Your task to perform on an android device: turn on javascript in the chrome app Image 0: 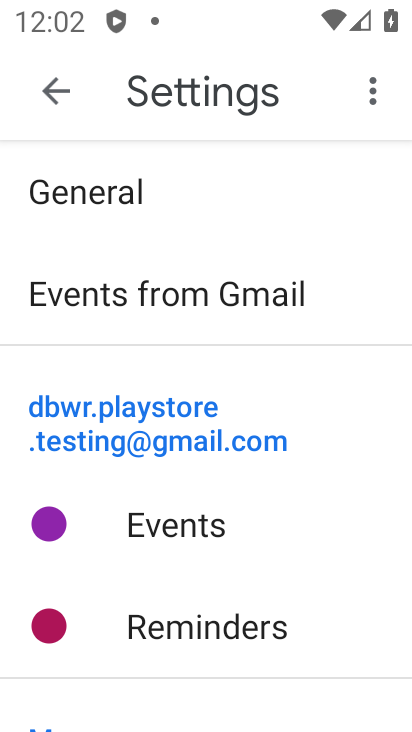
Step 0: press home button
Your task to perform on an android device: turn on javascript in the chrome app Image 1: 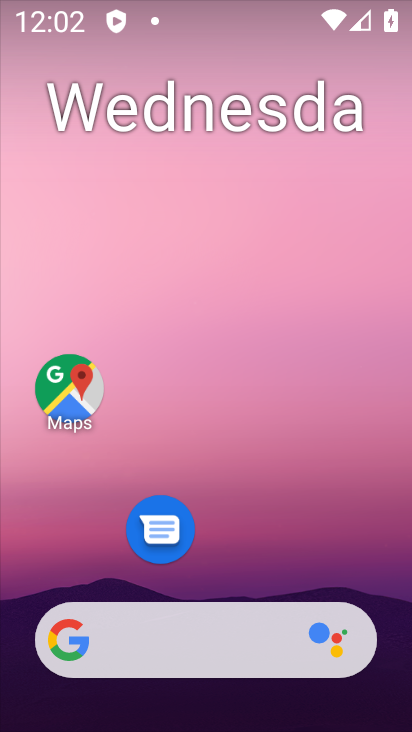
Step 1: drag from (220, 585) to (387, 3)
Your task to perform on an android device: turn on javascript in the chrome app Image 2: 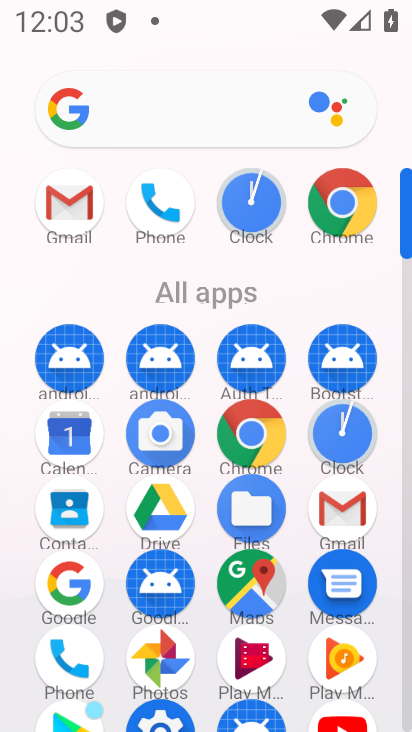
Step 2: click (271, 441)
Your task to perform on an android device: turn on javascript in the chrome app Image 3: 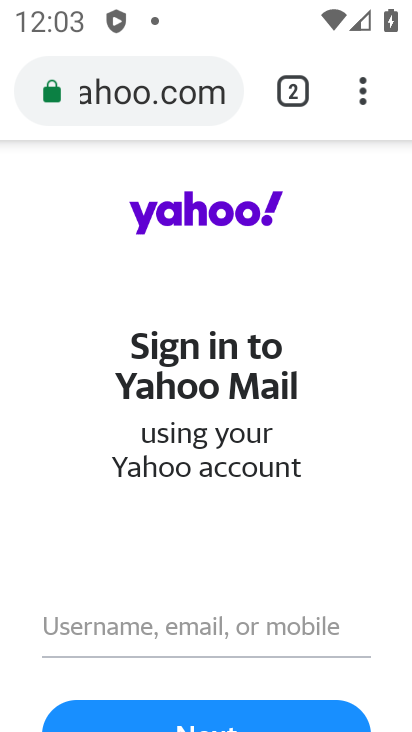
Step 3: drag from (355, 84) to (129, 558)
Your task to perform on an android device: turn on javascript in the chrome app Image 4: 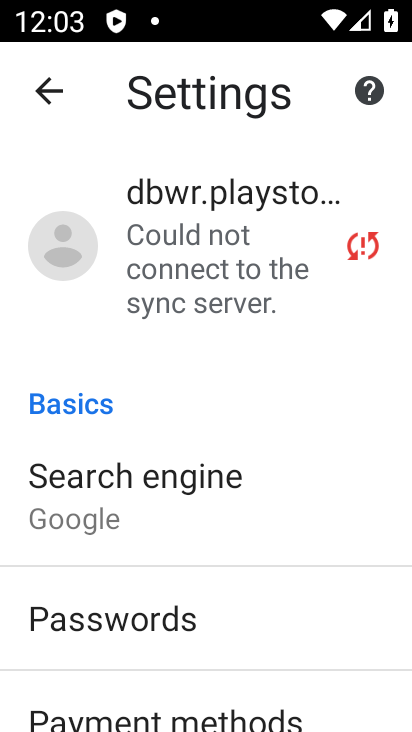
Step 4: drag from (180, 673) to (169, 180)
Your task to perform on an android device: turn on javascript in the chrome app Image 5: 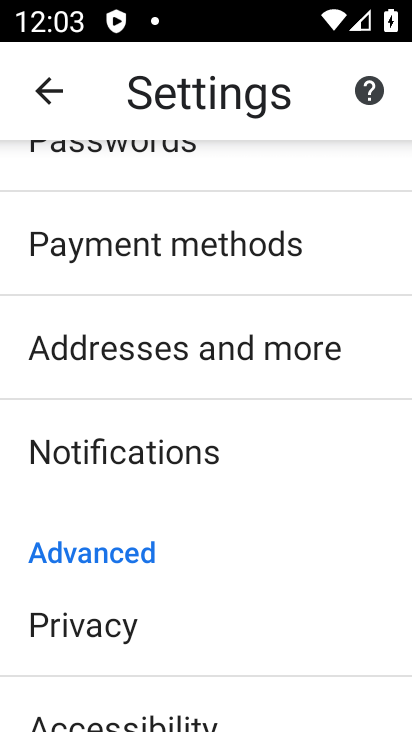
Step 5: drag from (230, 606) to (244, 211)
Your task to perform on an android device: turn on javascript in the chrome app Image 6: 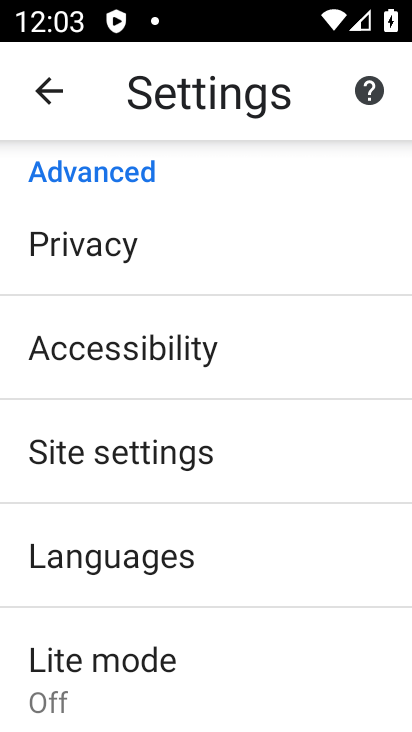
Step 6: click (153, 455)
Your task to perform on an android device: turn on javascript in the chrome app Image 7: 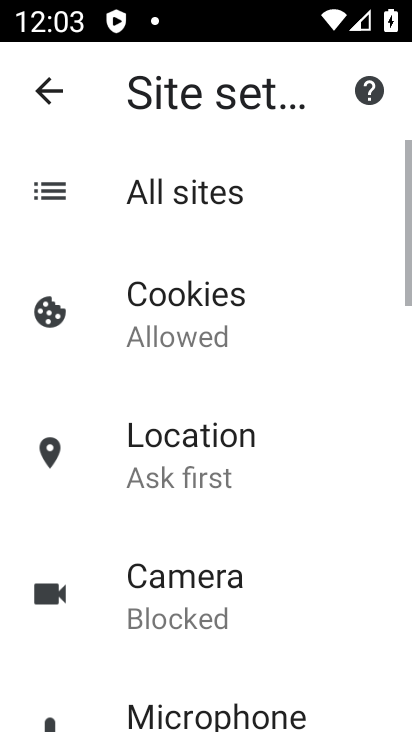
Step 7: drag from (209, 616) to (214, 212)
Your task to perform on an android device: turn on javascript in the chrome app Image 8: 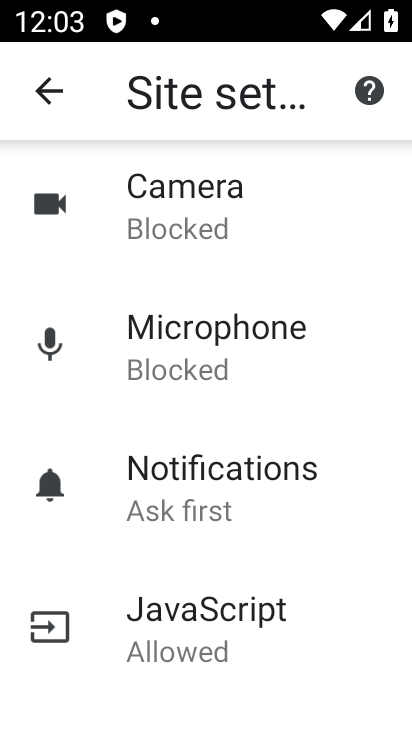
Step 8: click (224, 630)
Your task to perform on an android device: turn on javascript in the chrome app Image 9: 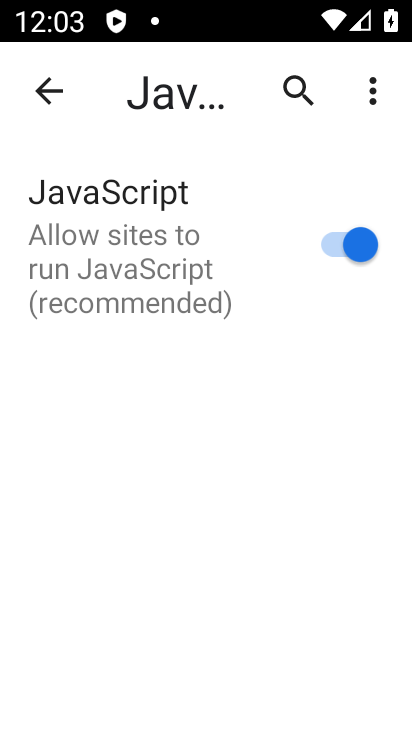
Step 9: task complete